Your task to perform on an android device: Open notification settings Image 0: 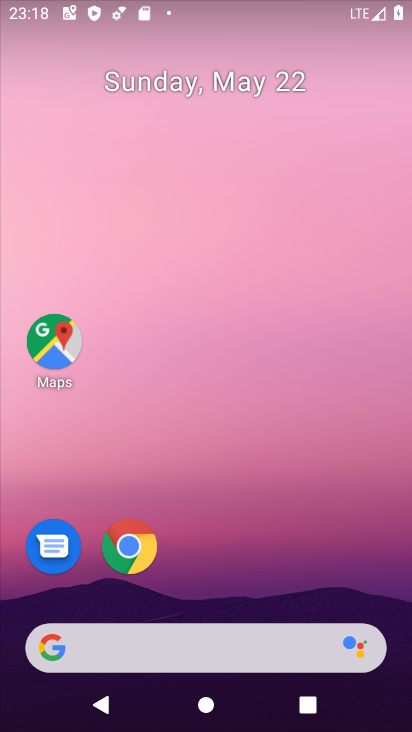
Step 0: drag from (295, 111) to (229, 201)
Your task to perform on an android device: Open notification settings Image 1: 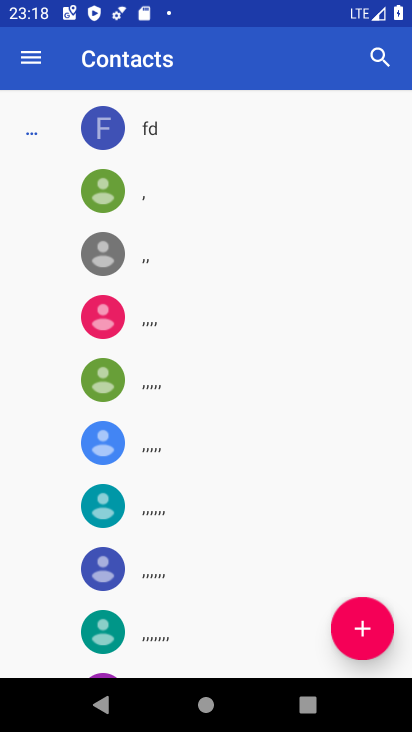
Step 1: drag from (256, 510) to (323, 251)
Your task to perform on an android device: Open notification settings Image 2: 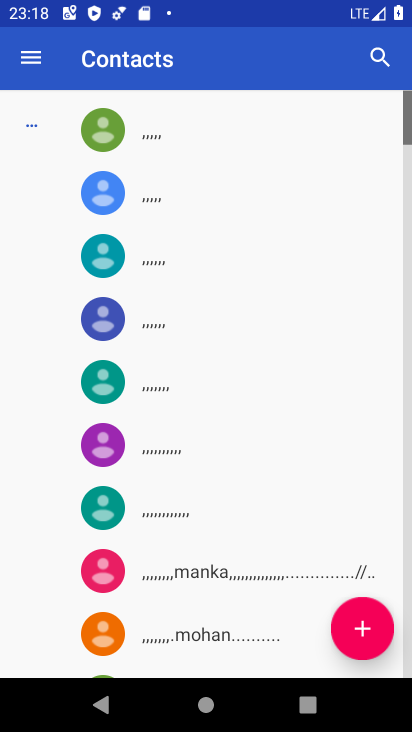
Step 2: drag from (226, 561) to (287, 265)
Your task to perform on an android device: Open notification settings Image 3: 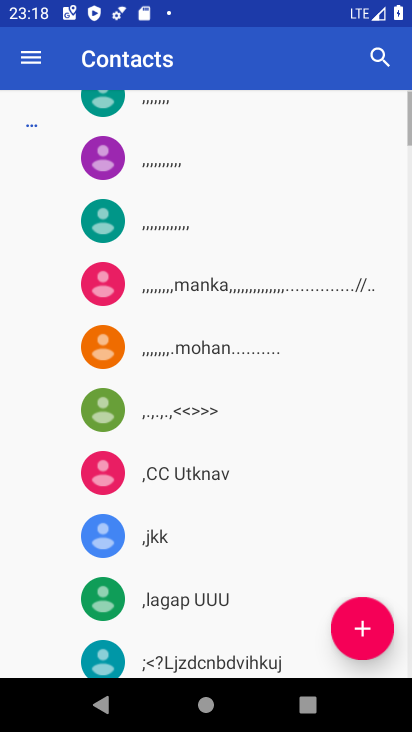
Step 3: press home button
Your task to perform on an android device: Open notification settings Image 4: 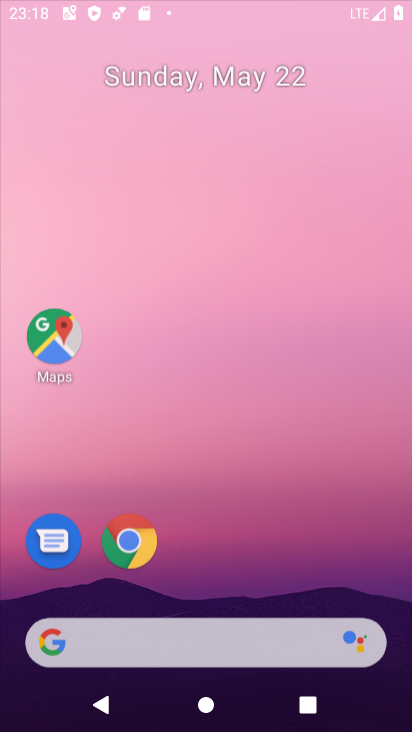
Step 4: drag from (171, 621) to (252, 214)
Your task to perform on an android device: Open notification settings Image 5: 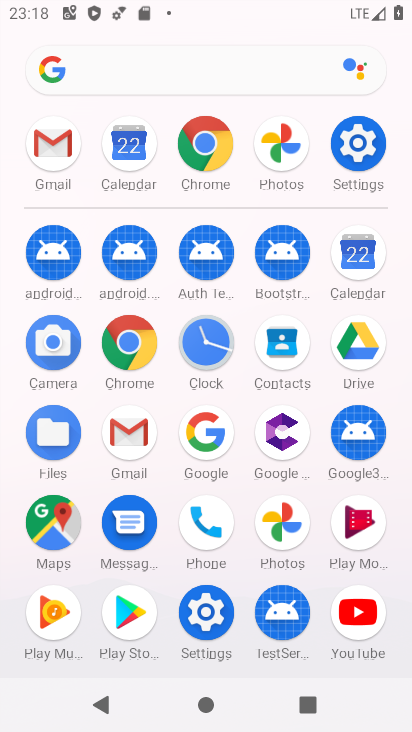
Step 5: click (370, 122)
Your task to perform on an android device: Open notification settings Image 6: 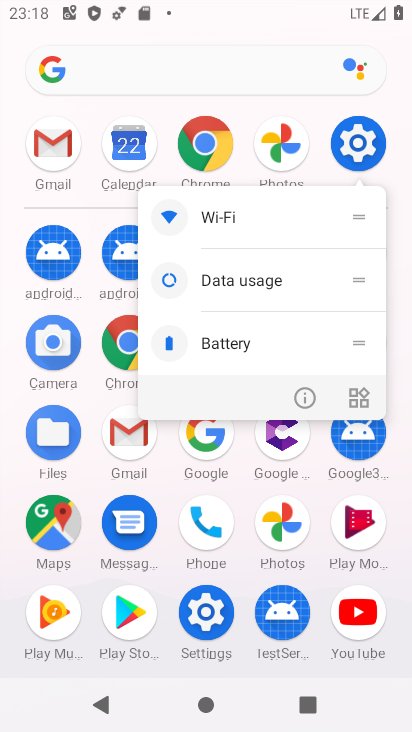
Step 6: click (304, 401)
Your task to perform on an android device: Open notification settings Image 7: 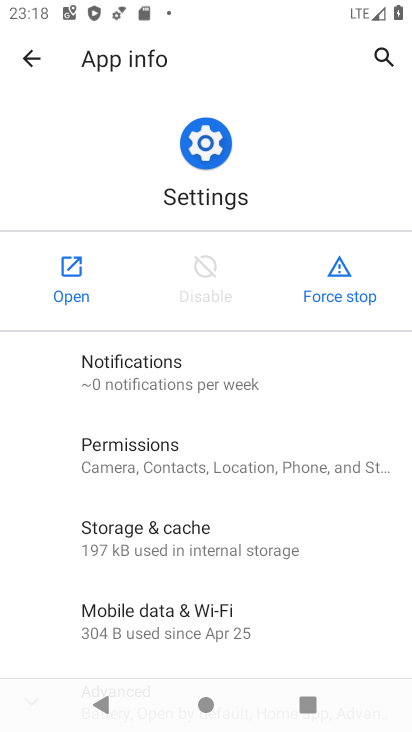
Step 7: click (80, 268)
Your task to perform on an android device: Open notification settings Image 8: 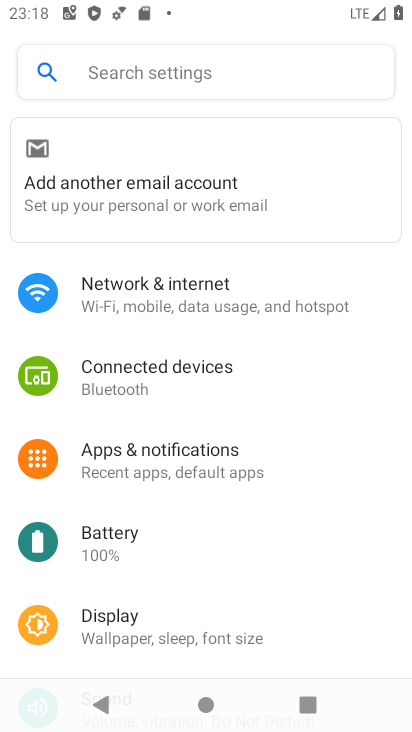
Step 8: drag from (127, 644) to (256, 142)
Your task to perform on an android device: Open notification settings Image 9: 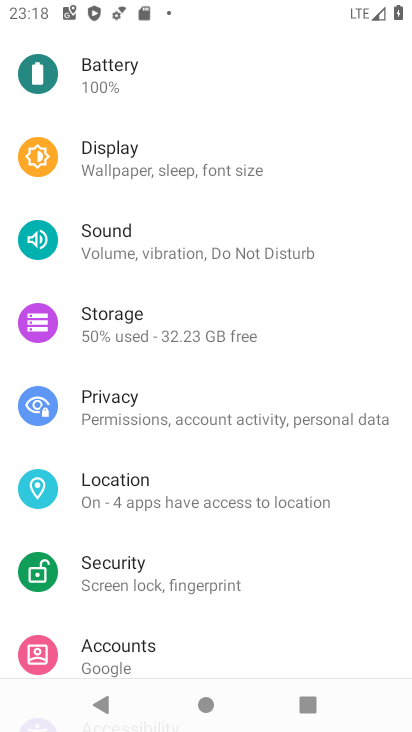
Step 9: drag from (250, 186) to (158, 726)
Your task to perform on an android device: Open notification settings Image 10: 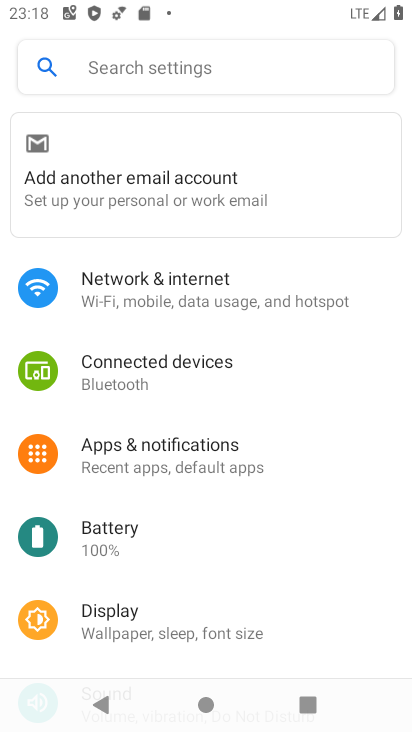
Step 10: click (149, 456)
Your task to perform on an android device: Open notification settings Image 11: 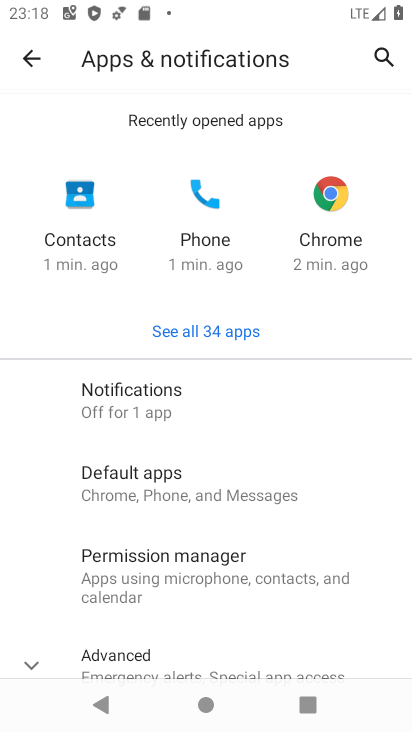
Step 11: click (193, 396)
Your task to perform on an android device: Open notification settings Image 12: 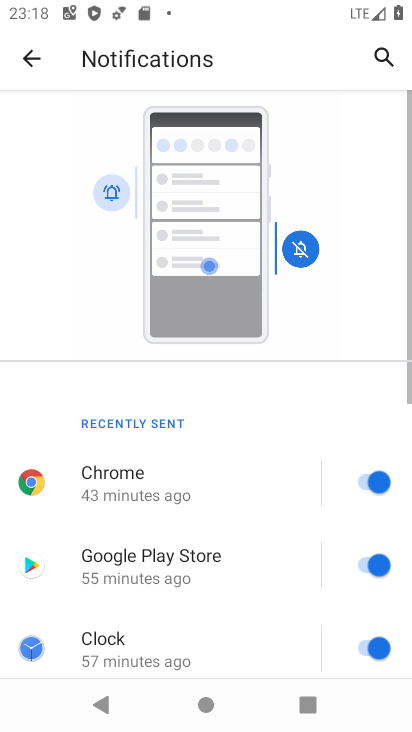
Step 12: drag from (186, 550) to (289, 232)
Your task to perform on an android device: Open notification settings Image 13: 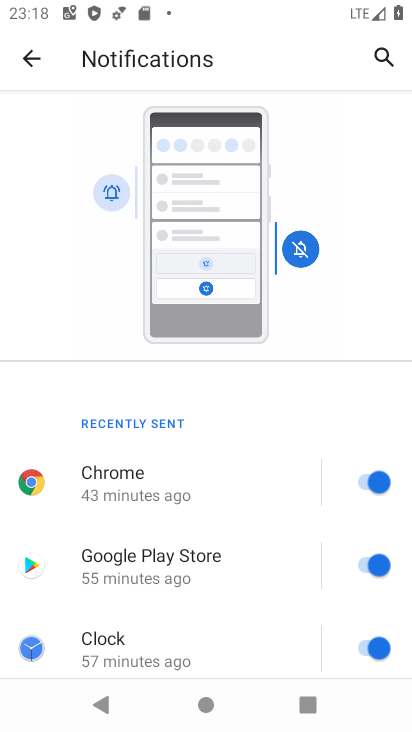
Step 13: drag from (275, 160) to (292, 120)
Your task to perform on an android device: Open notification settings Image 14: 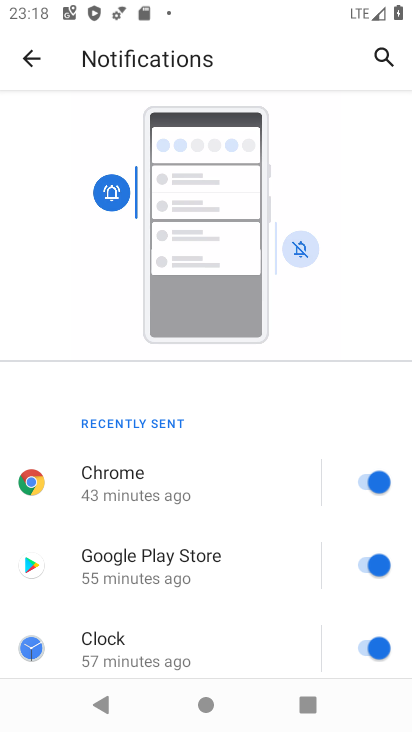
Step 14: drag from (217, 630) to (252, 188)
Your task to perform on an android device: Open notification settings Image 15: 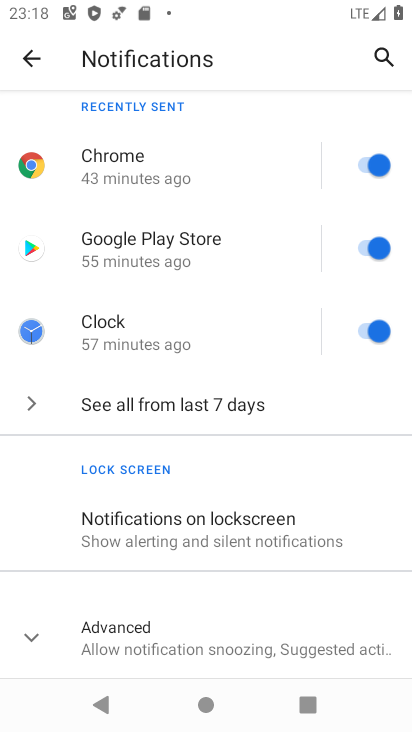
Step 15: drag from (221, 547) to (317, 187)
Your task to perform on an android device: Open notification settings Image 16: 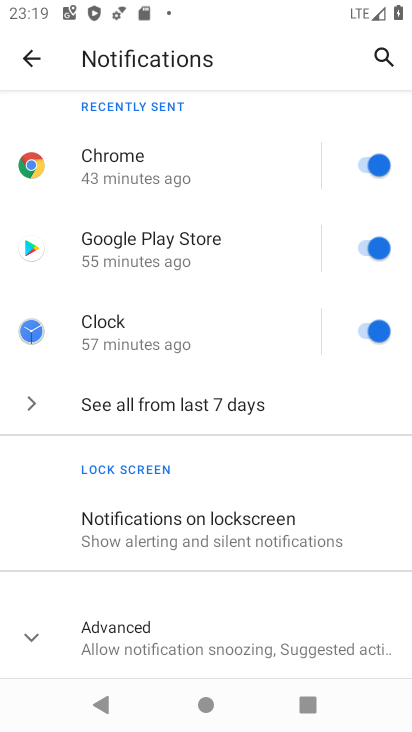
Step 16: drag from (257, 211) to (318, 730)
Your task to perform on an android device: Open notification settings Image 17: 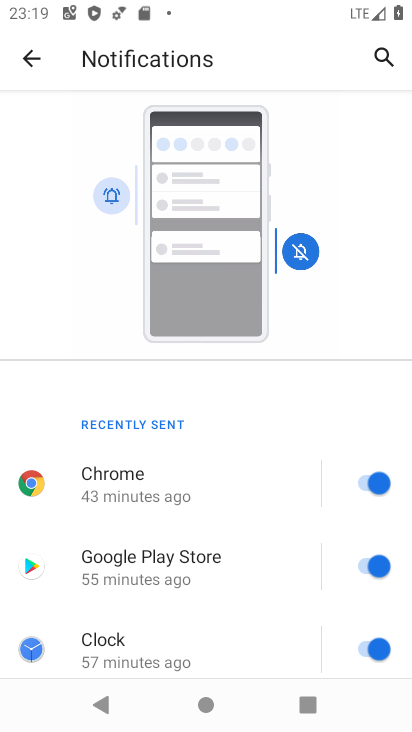
Step 17: drag from (271, 546) to (277, 308)
Your task to perform on an android device: Open notification settings Image 18: 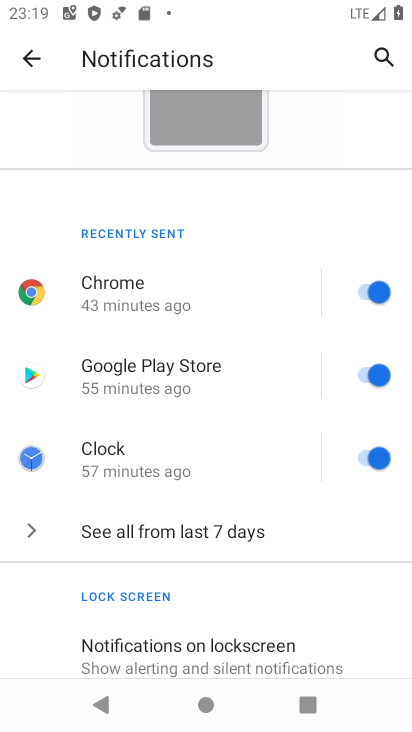
Step 18: drag from (235, 596) to (284, 205)
Your task to perform on an android device: Open notification settings Image 19: 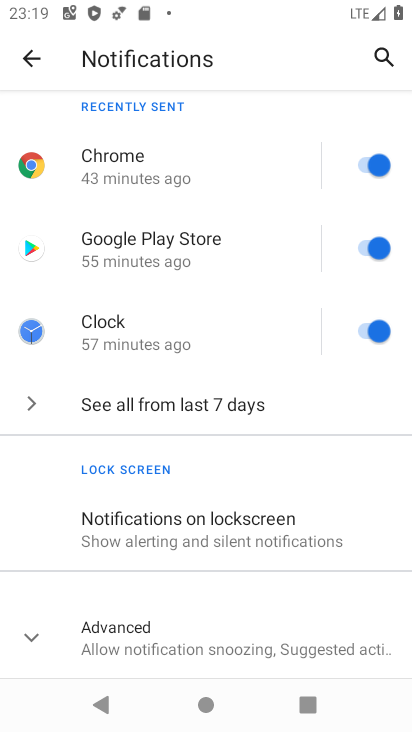
Step 19: click (142, 637)
Your task to perform on an android device: Open notification settings Image 20: 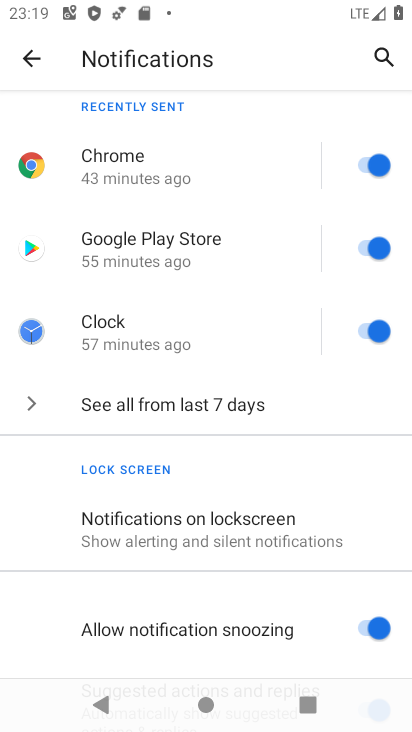
Step 20: drag from (226, 564) to (328, 144)
Your task to perform on an android device: Open notification settings Image 21: 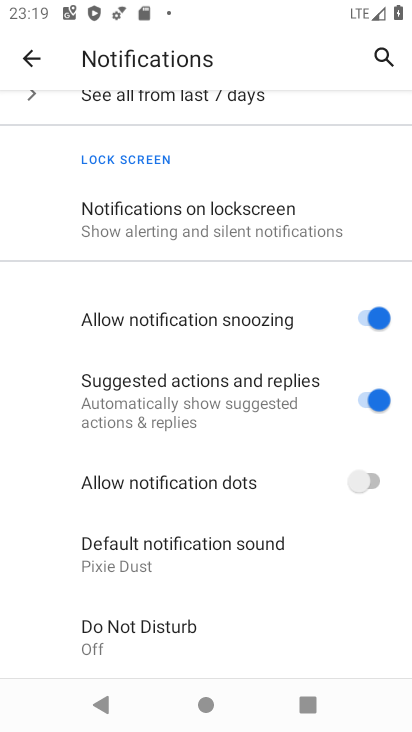
Step 21: drag from (203, 557) to (278, 171)
Your task to perform on an android device: Open notification settings Image 22: 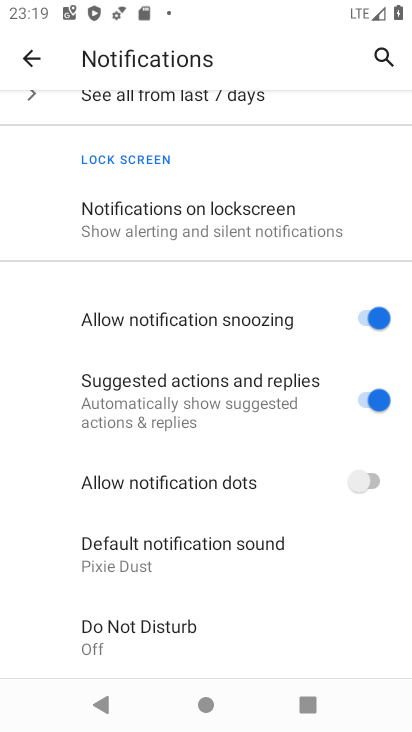
Step 22: drag from (215, 260) to (297, 729)
Your task to perform on an android device: Open notification settings Image 23: 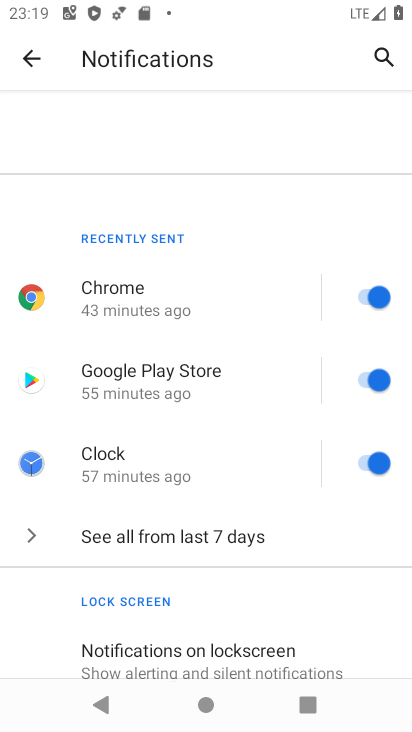
Step 23: drag from (205, 615) to (255, 221)
Your task to perform on an android device: Open notification settings Image 24: 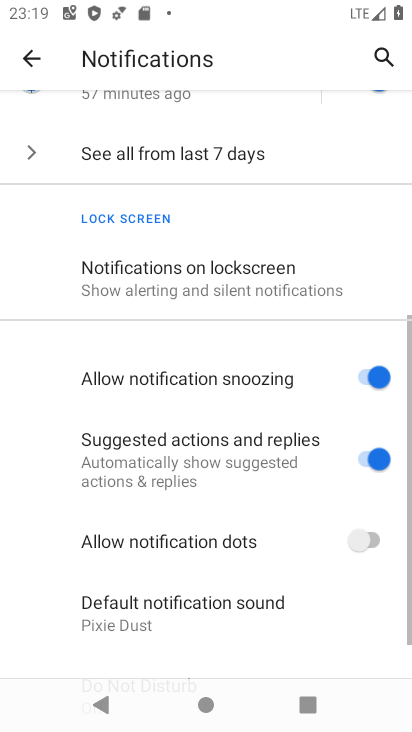
Step 24: drag from (255, 221) to (281, 726)
Your task to perform on an android device: Open notification settings Image 25: 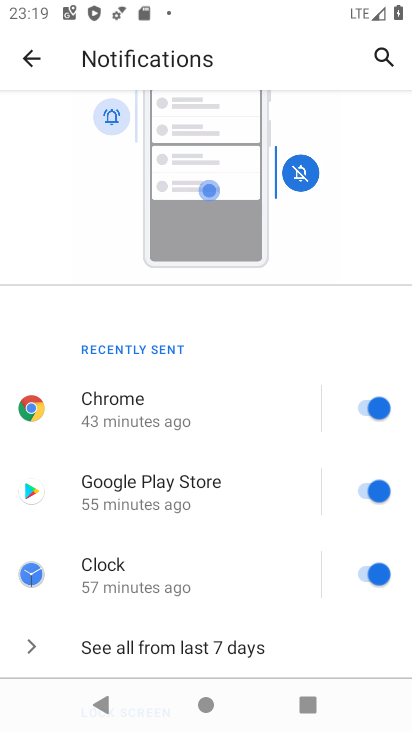
Step 25: drag from (256, 328) to (237, 731)
Your task to perform on an android device: Open notification settings Image 26: 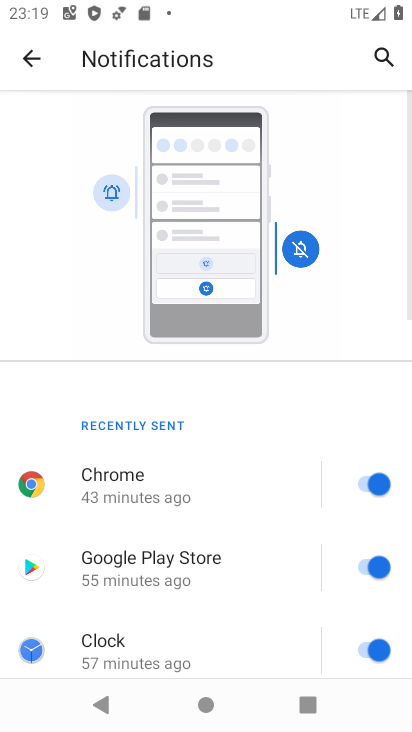
Step 26: drag from (267, 468) to (236, 666)
Your task to perform on an android device: Open notification settings Image 27: 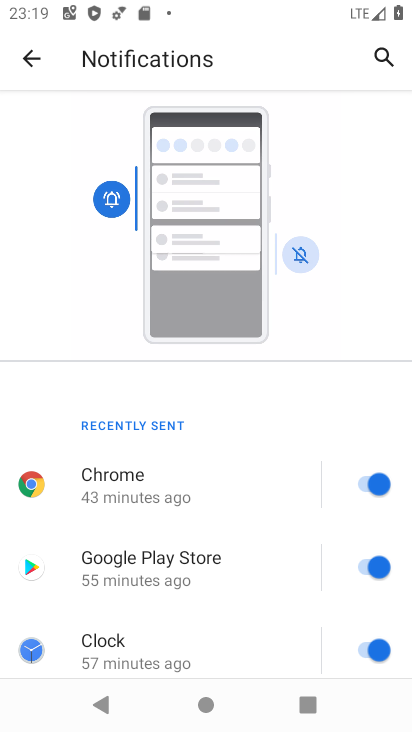
Step 27: drag from (237, 588) to (306, 256)
Your task to perform on an android device: Open notification settings Image 28: 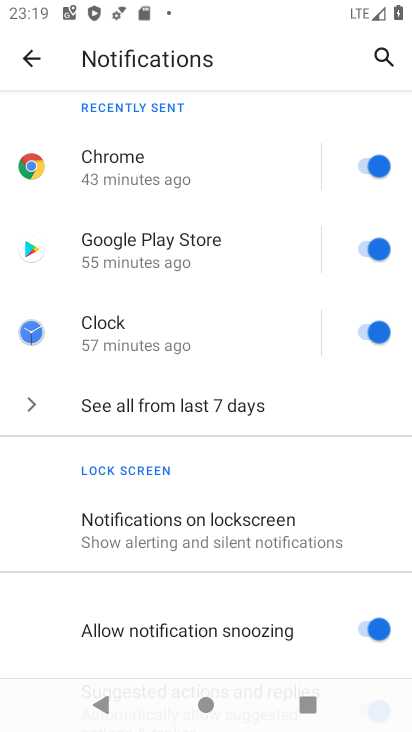
Step 28: drag from (217, 635) to (256, 180)
Your task to perform on an android device: Open notification settings Image 29: 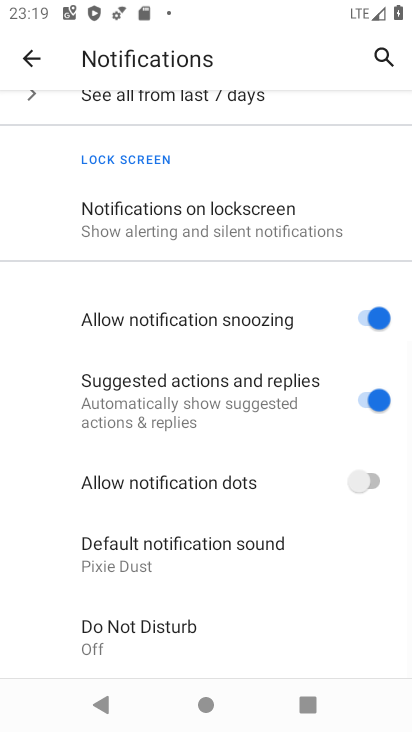
Step 29: drag from (186, 210) to (310, 93)
Your task to perform on an android device: Open notification settings Image 30: 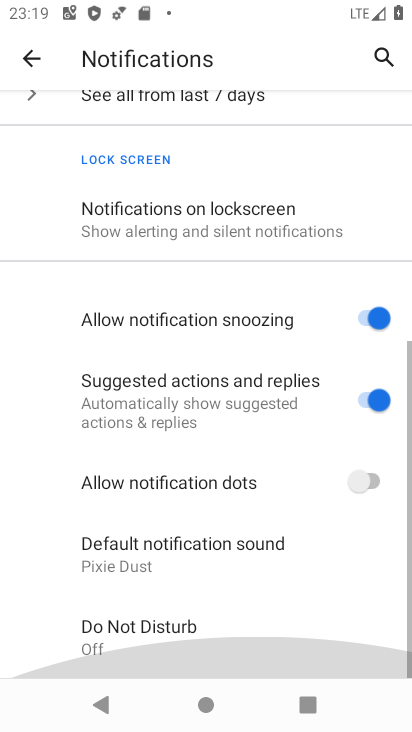
Step 30: drag from (310, 97) to (349, 716)
Your task to perform on an android device: Open notification settings Image 31: 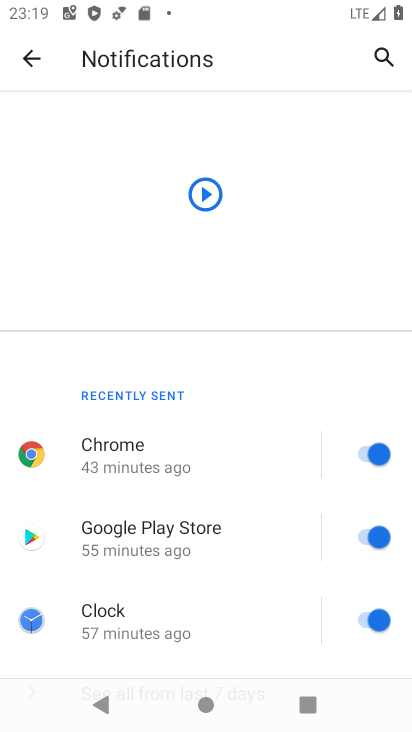
Step 31: click (30, 49)
Your task to perform on an android device: Open notification settings Image 32: 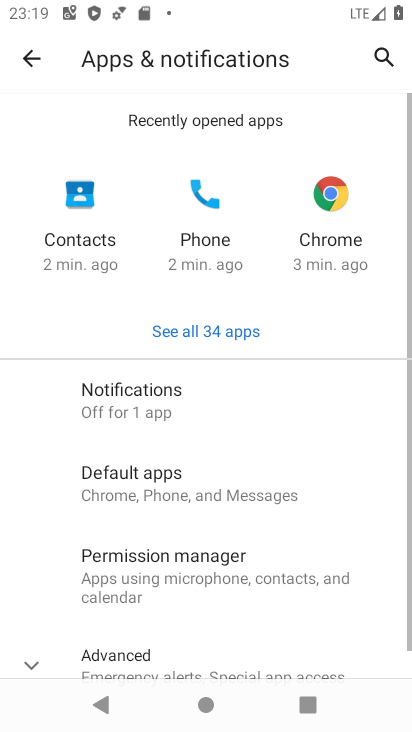
Step 32: drag from (286, 285) to (292, 728)
Your task to perform on an android device: Open notification settings Image 33: 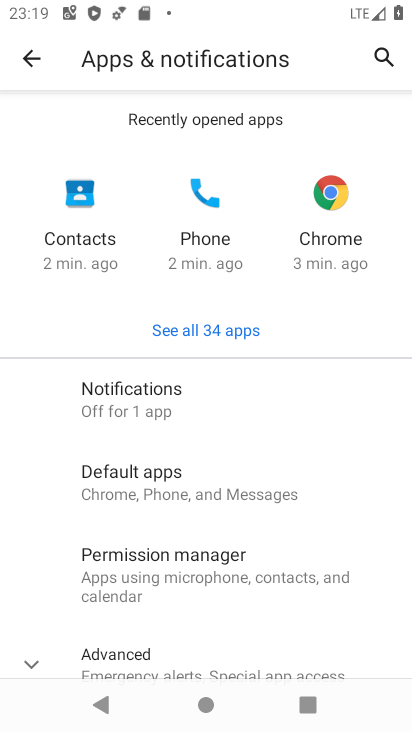
Step 33: click (188, 405)
Your task to perform on an android device: Open notification settings Image 34: 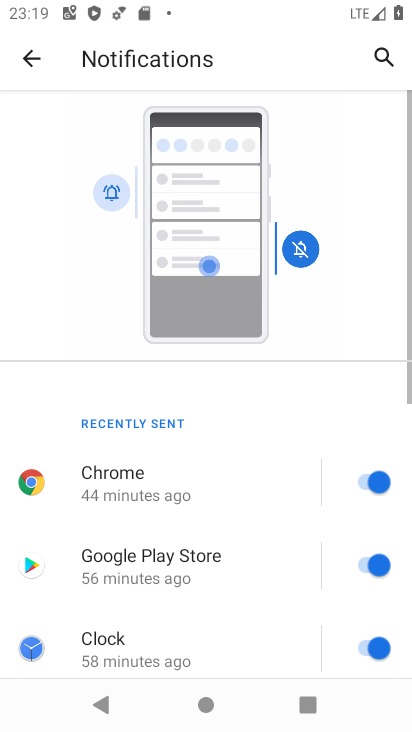
Step 34: task complete